Your task to perform on an android device: allow notifications from all sites in the chrome app Image 0: 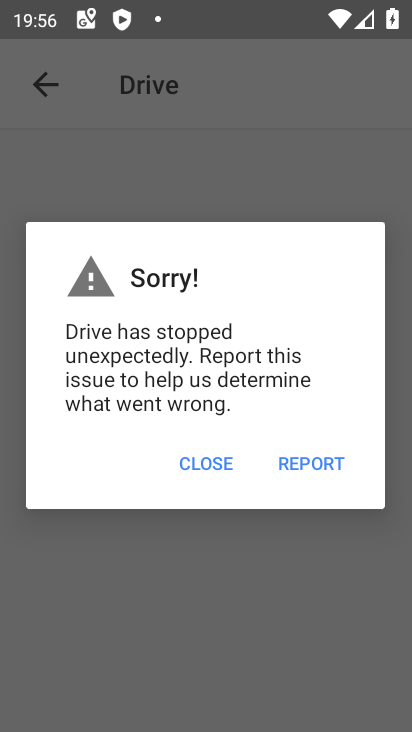
Step 0: press home button
Your task to perform on an android device: allow notifications from all sites in the chrome app Image 1: 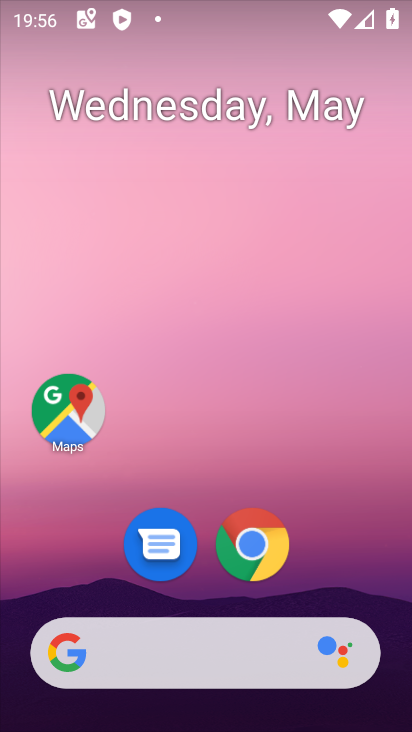
Step 1: click (256, 543)
Your task to perform on an android device: allow notifications from all sites in the chrome app Image 2: 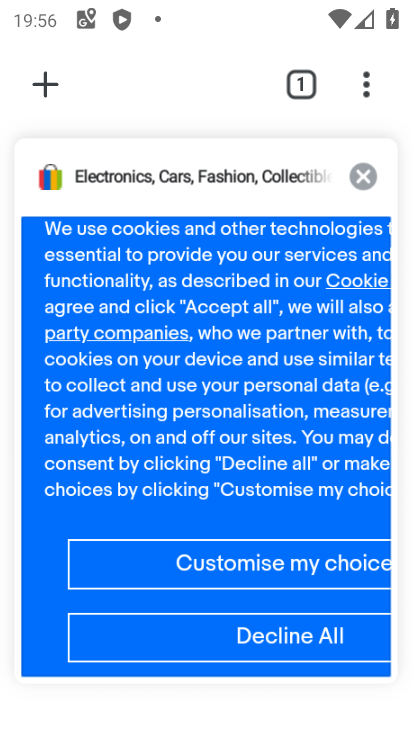
Step 2: click (375, 75)
Your task to perform on an android device: allow notifications from all sites in the chrome app Image 3: 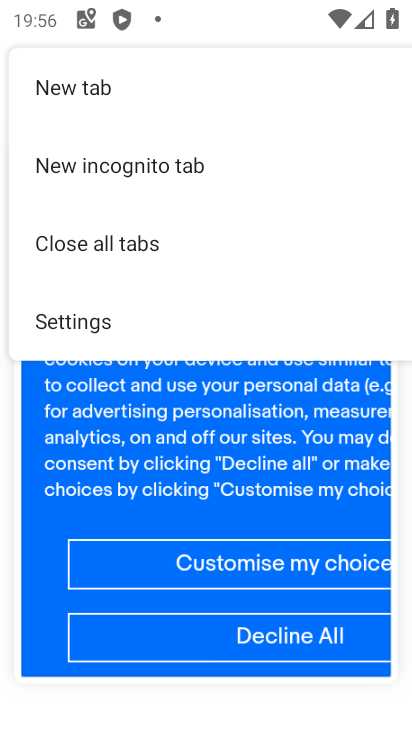
Step 3: click (82, 338)
Your task to perform on an android device: allow notifications from all sites in the chrome app Image 4: 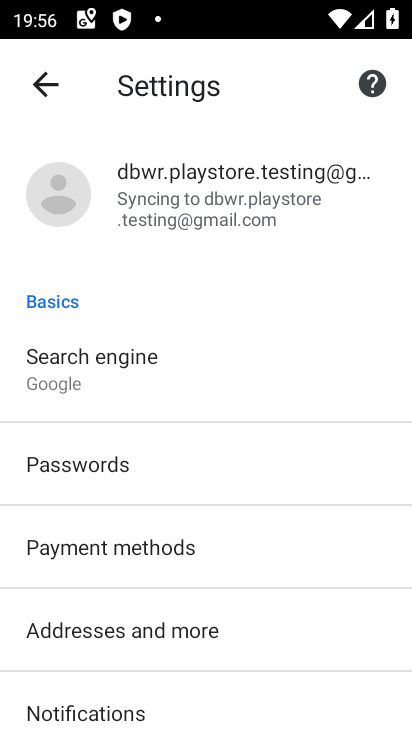
Step 4: click (134, 689)
Your task to perform on an android device: allow notifications from all sites in the chrome app Image 5: 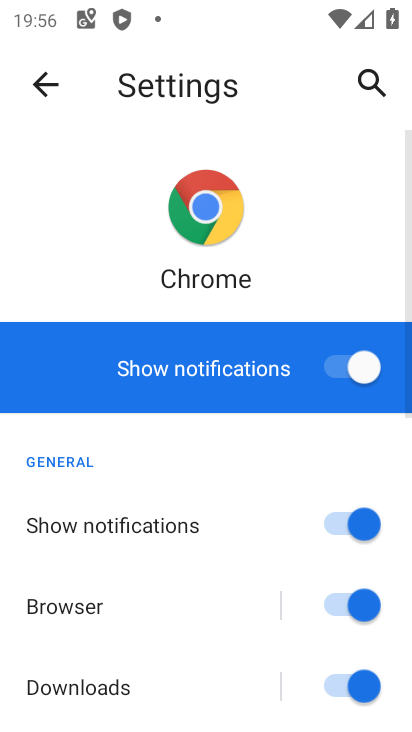
Step 5: task complete